Your task to perform on an android device: View the shopping cart on target.com. Search for asus zenbook on target.com, select the first entry, add it to the cart, then select checkout. Image 0: 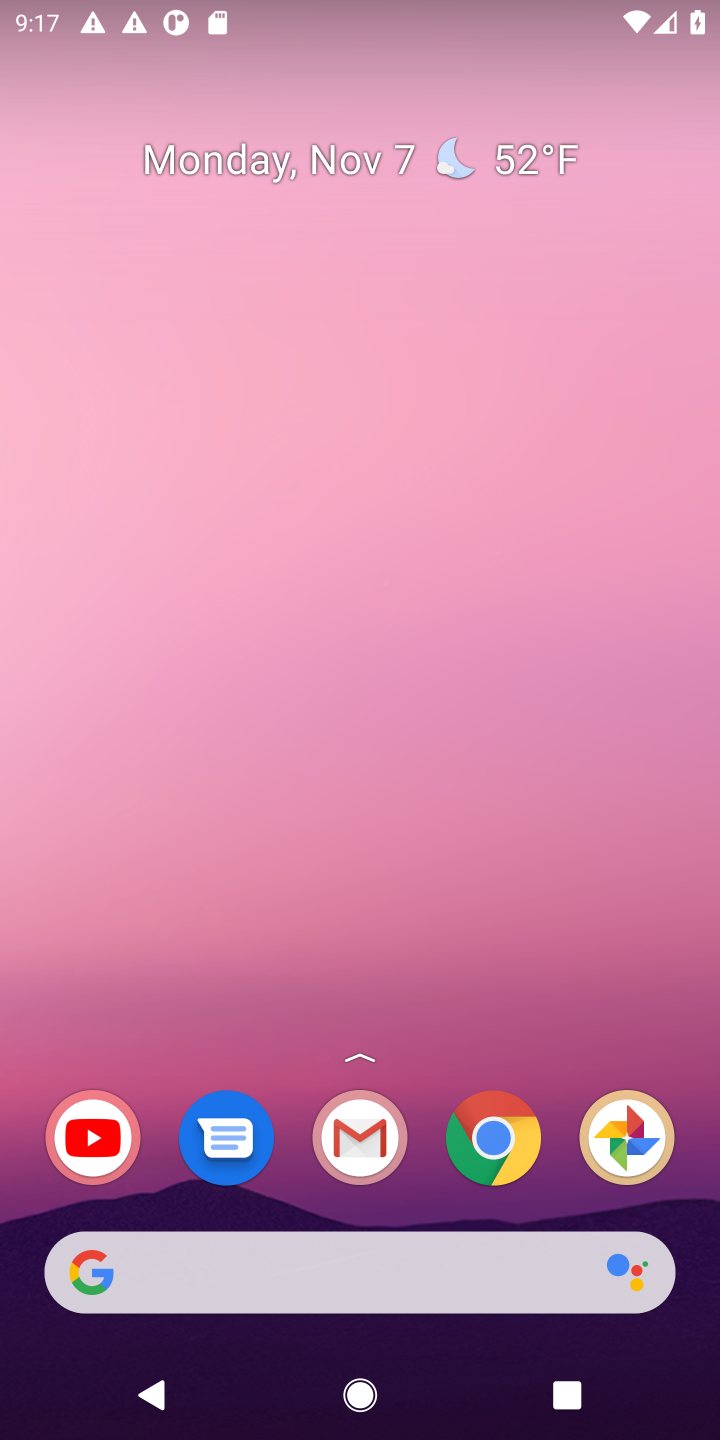
Step 0: click (507, 1161)
Your task to perform on an android device: View the shopping cart on target.com. Search for asus zenbook on target.com, select the first entry, add it to the cart, then select checkout. Image 1: 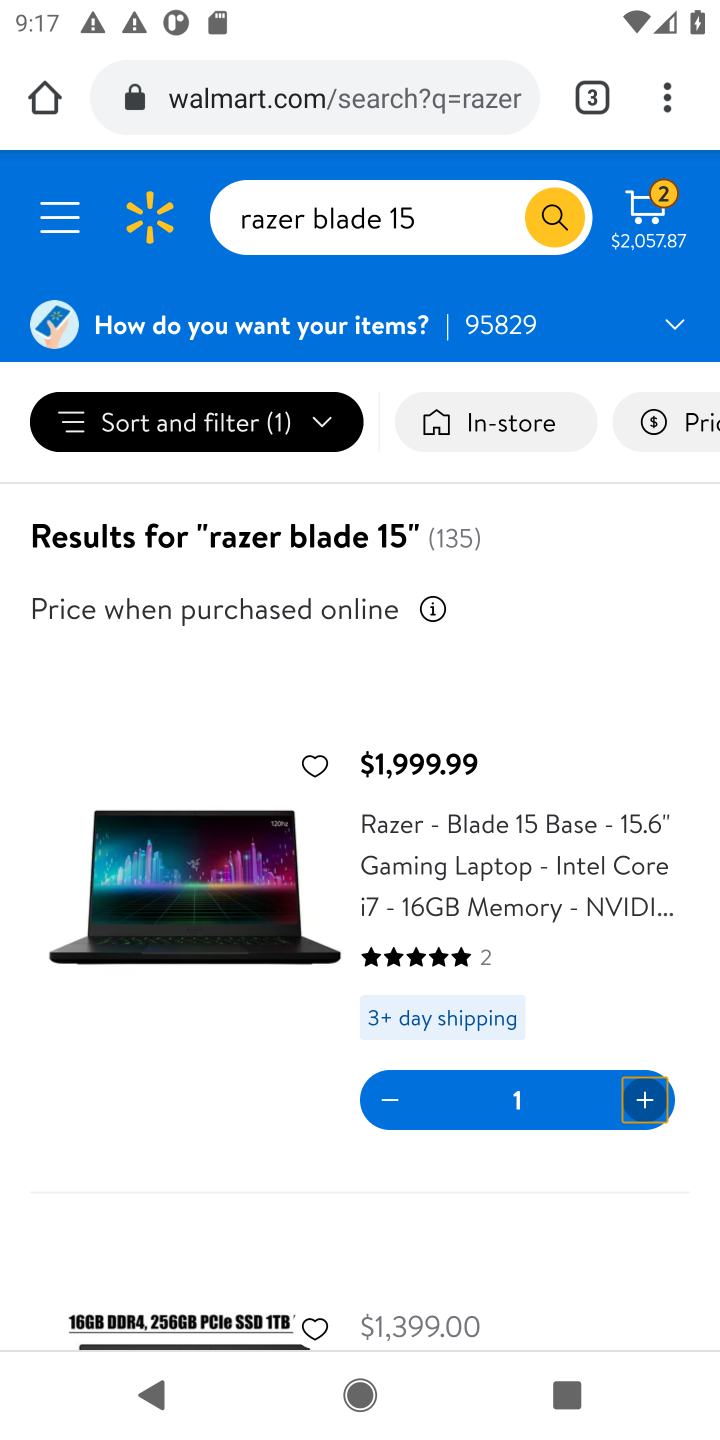
Step 1: click (598, 107)
Your task to perform on an android device: View the shopping cart on target.com. Search for asus zenbook on target.com, select the first entry, add it to the cart, then select checkout. Image 2: 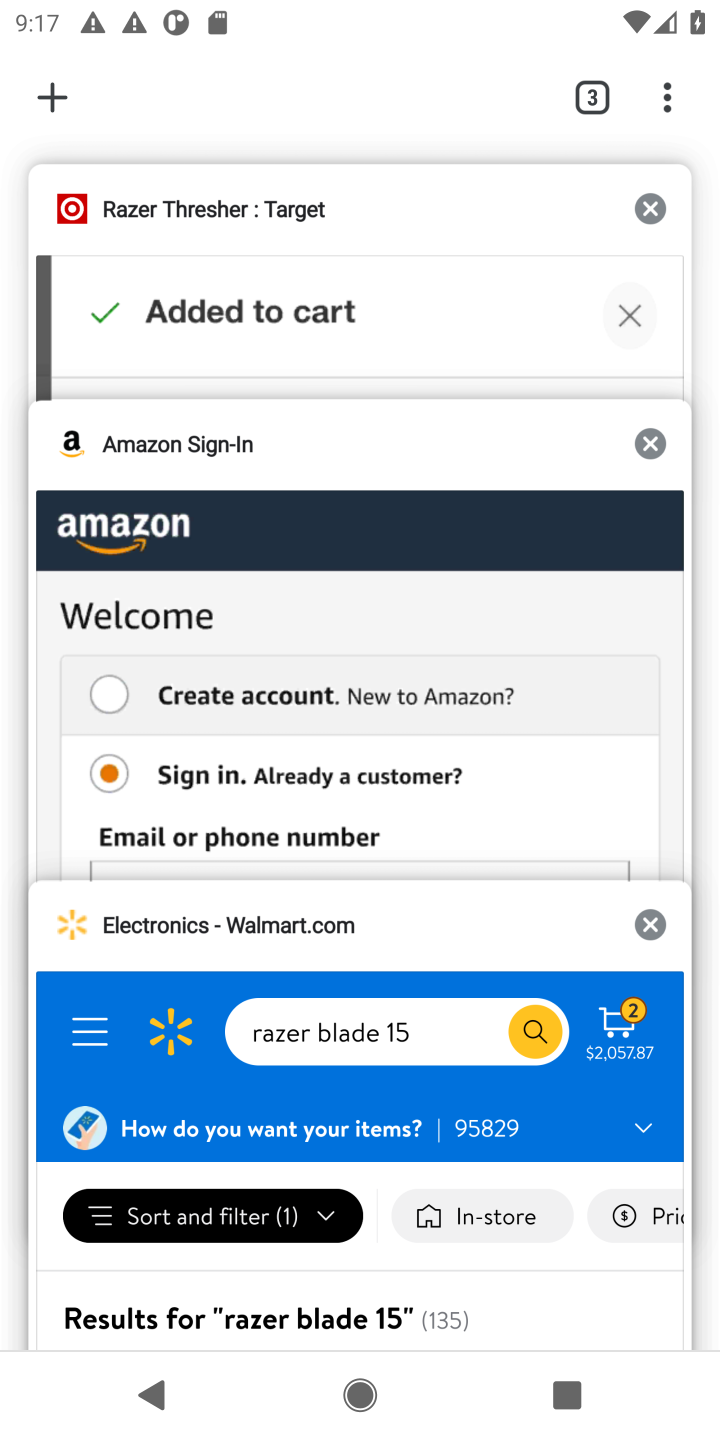
Step 2: click (341, 317)
Your task to perform on an android device: View the shopping cart on target.com. Search for asus zenbook on target.com, select the first entry, add it to the cart, then select checkout. Image 3: 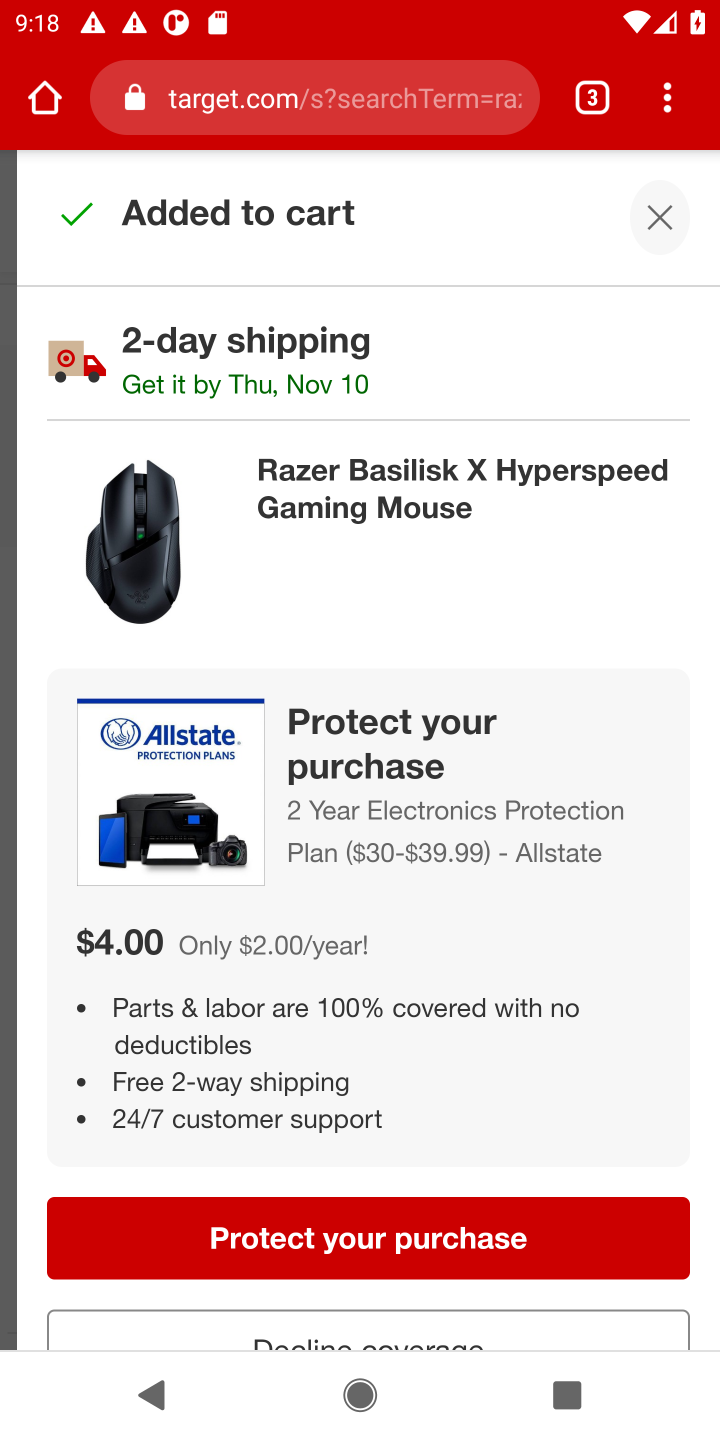
Step 3: click (631, 225)
Your task to perform on an android device: View the shopping cart on target.com. Search for asus zenbook on target.com, select the first entry, add it to the cart, then select checkout. Image 4: 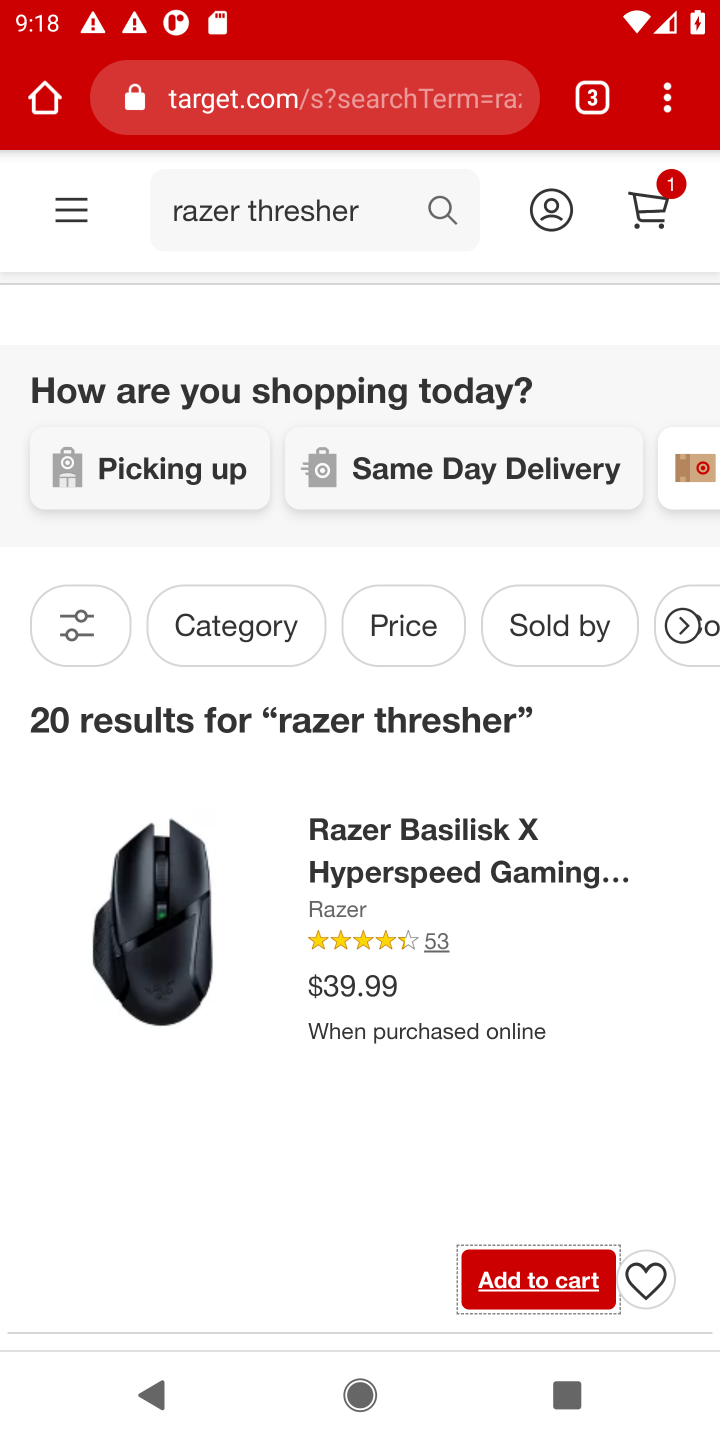
Step 4: click (287, 222)
Your task to perform on an android device: View the shopping cart on target.com. Search for asus zenbook on target.com, select the first entry, add it to the cart, then select checkout. Image 5: 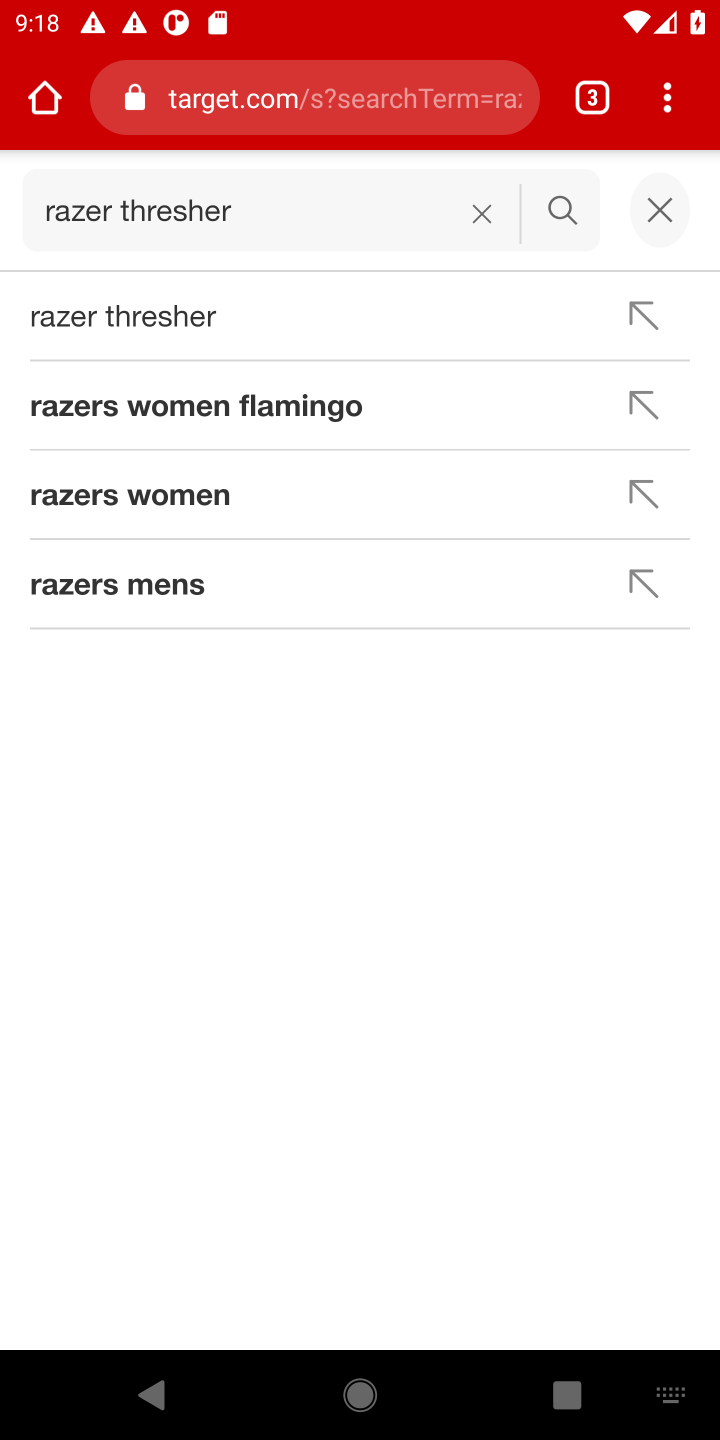
Step 5: click (486, 214)
Your task to perform on an android device: View the shopping cart on target.com. Search for asus zenbook on target.com, select the first entry, add it to the cart, then select checkout. Image 6: 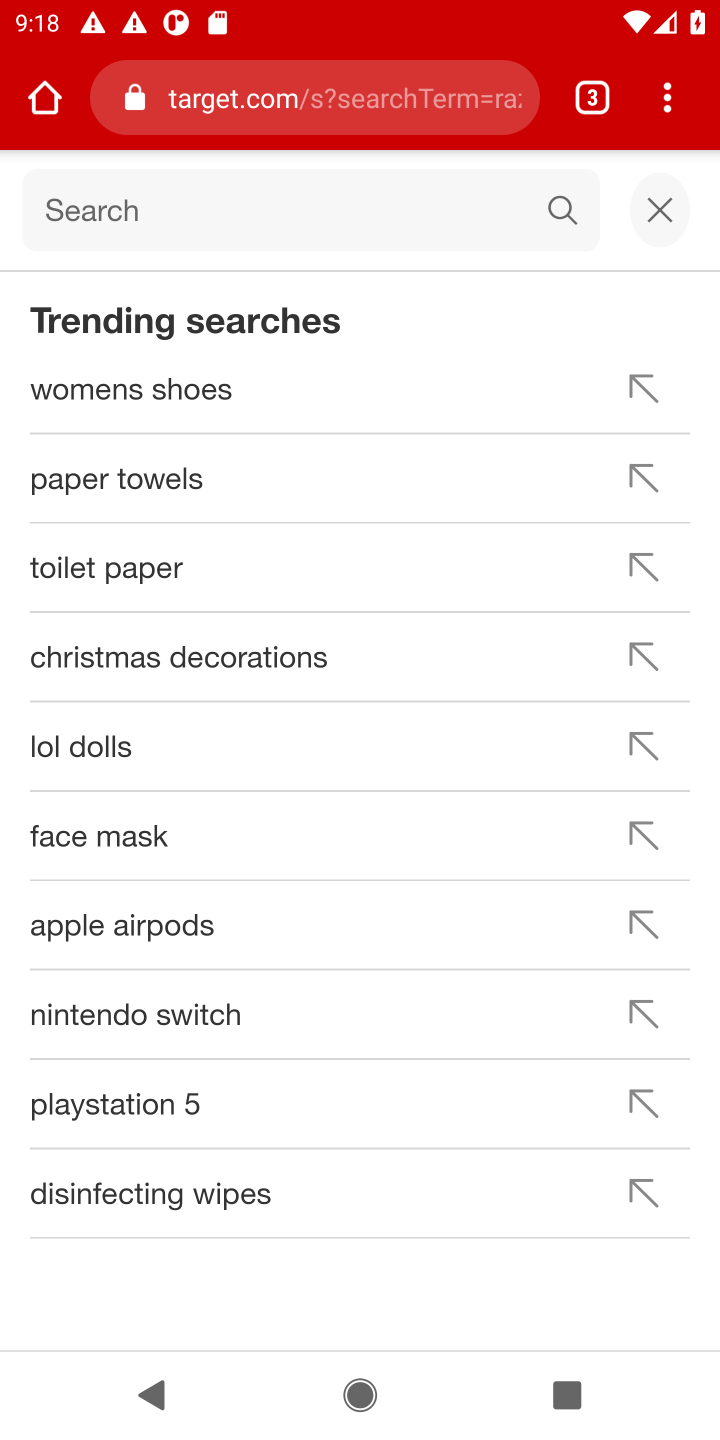
Step 6: type "asus zenbook"
Your task to perform on an android device: View the shopping cart on target.com. Search for asus zenbook on target.com, select the first entry, add it to the cart, then select checkout. Image 7: 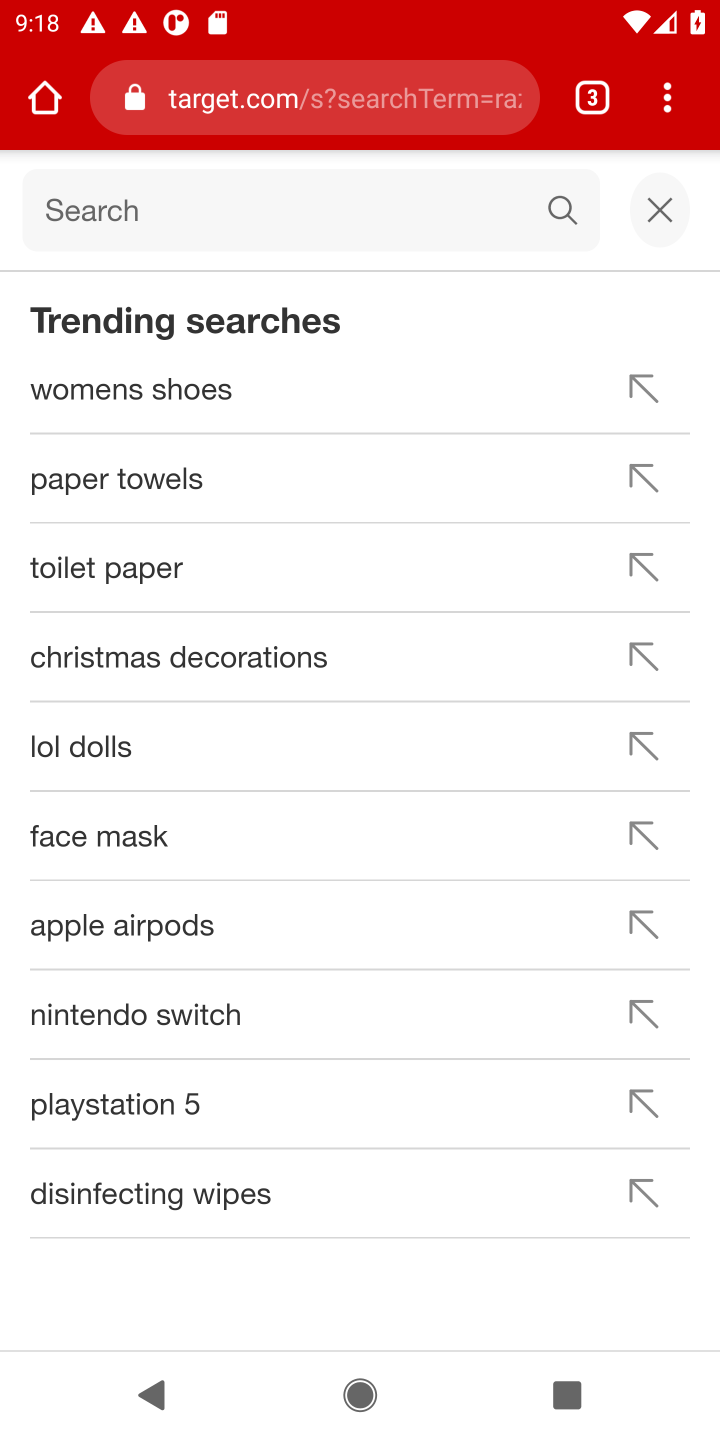
Step 7: click (227, 206)
Your task to perform on an android device: View the shopping cart on target.com. Search for asus zenbook on target.com, select the first entry, add it to the cart, then select checkout. Image 8: 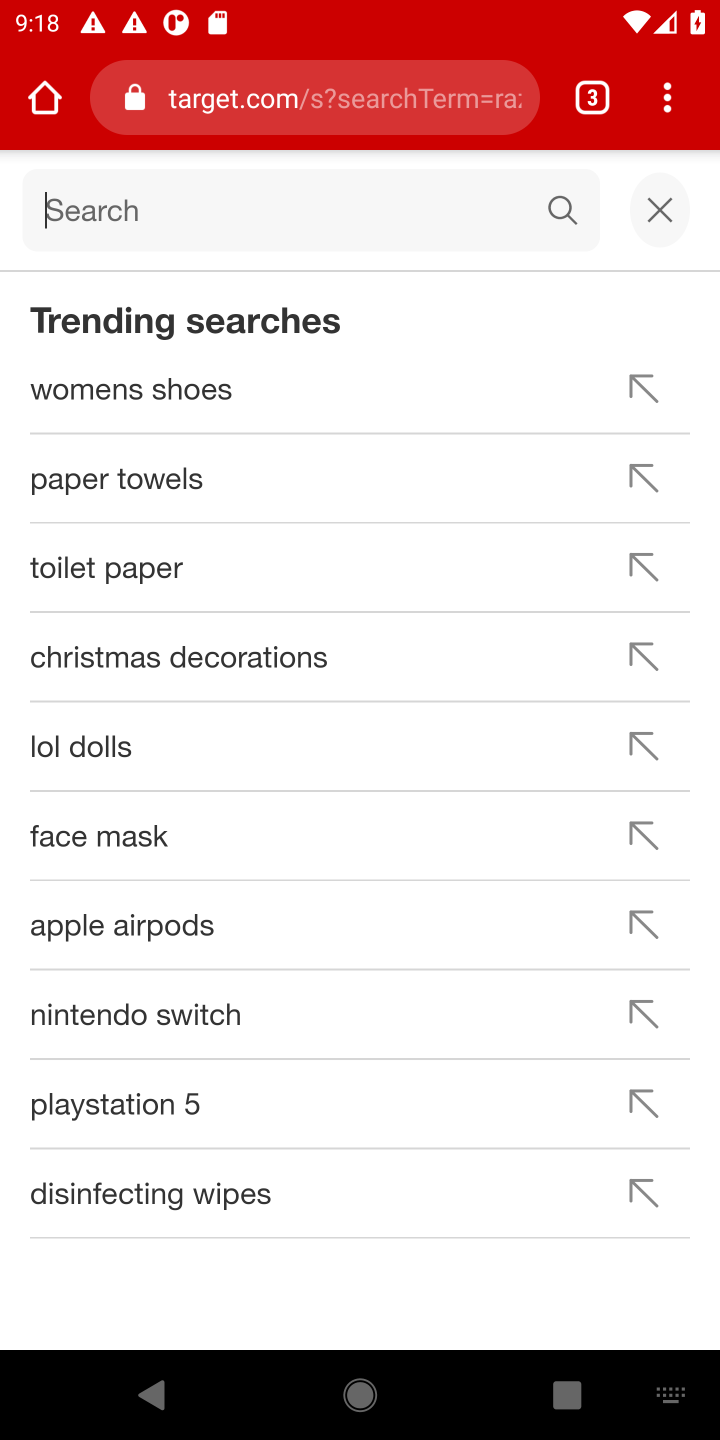
Step 8: type "asus zenbook"
Your task to perform on an android device: View the shopping cart on target.com. Search for asus zenbook on target.com, select the first entry, add it to the cart, then select checkout. Image 9: 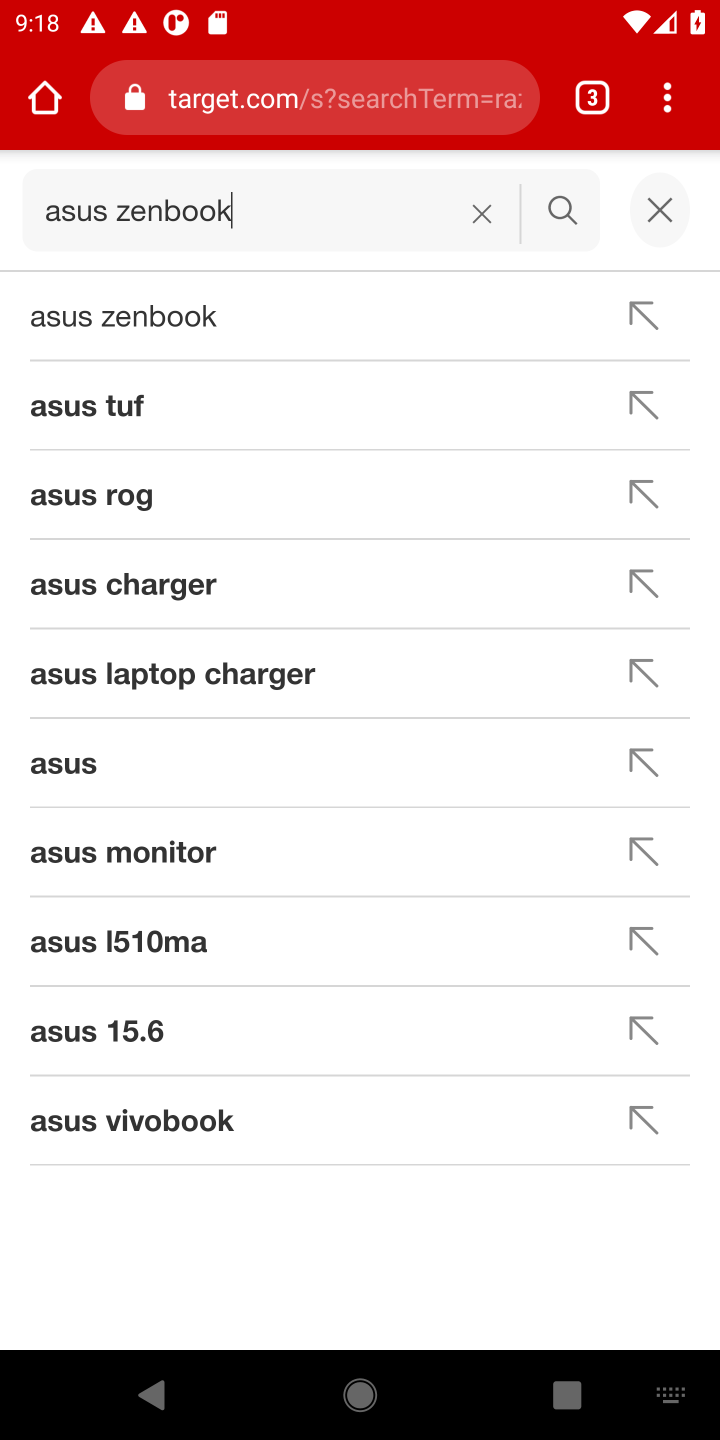
Step 9: click (153, 319)
Your task to perform on an android device: View the shopping cart on target.com. Search for asus zenbook on target.com, select the first entry, add it to the cart, then select checkout. Image 10: 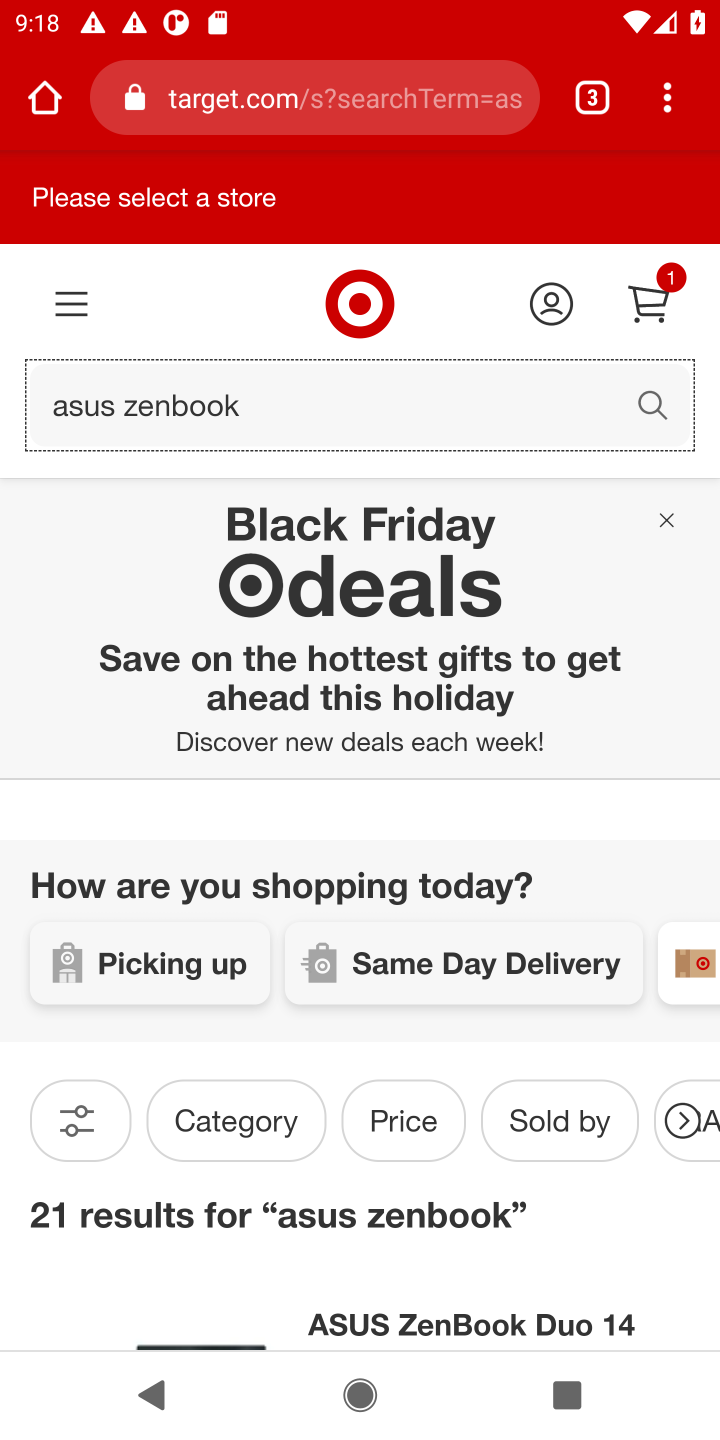
Step 10: drag from (462, 1224) to (633, 156)
Your task to perform on an android device: View the shopping cart on target.com. Search for asus zenbook on target.com, select the first entry, add it to the cart, then select checkout. Image 11: 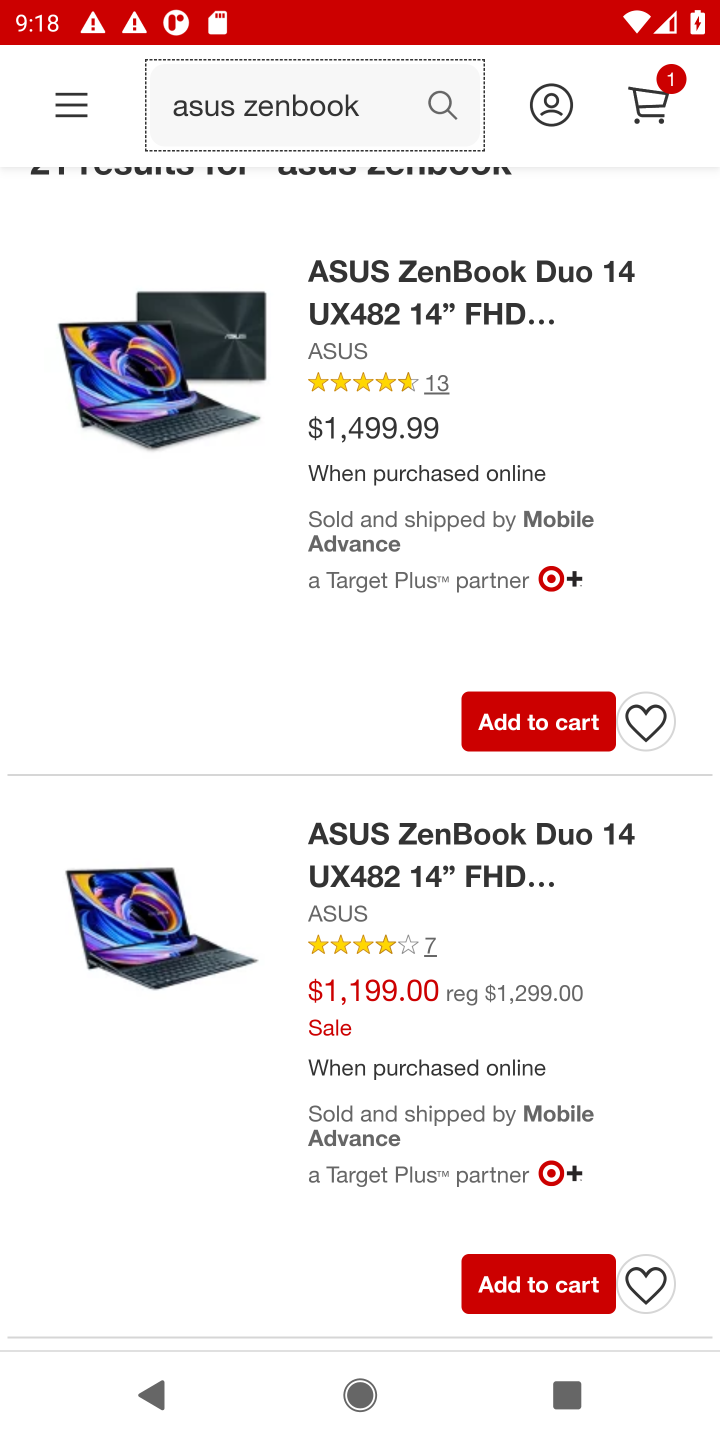
Step 11: click (507, 735)
Your task to perform on an android device: View the shopping cart on target.com. Search for asus zenbook on target.com, select the first entry, add it to the cart, then select checkout. Image 12: 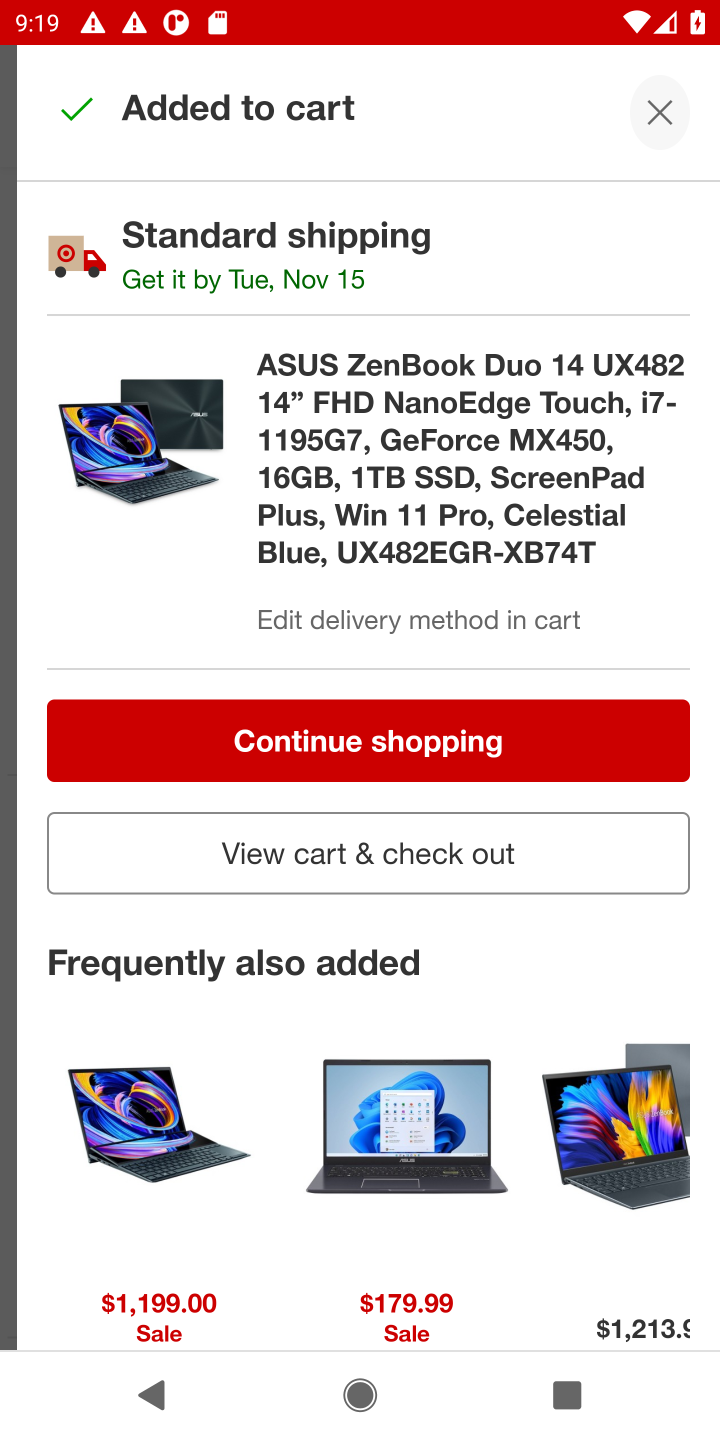
Step 12: task complete